Your task to perform on an android device: What's on my calendar tomorrow? Image 0: 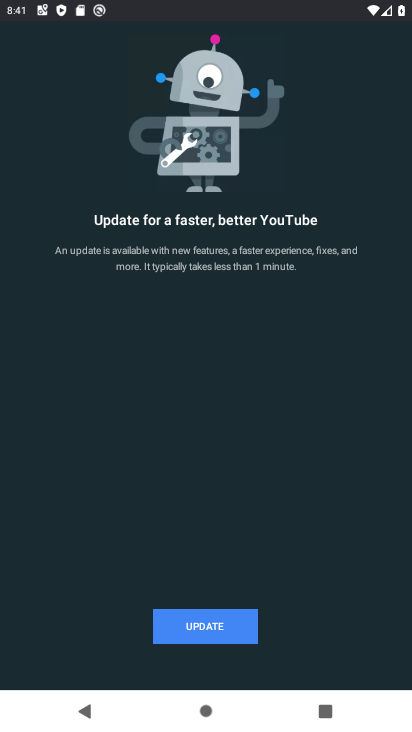
Step 0: press home button
Your task to perform on an android device: What's on my calendar tomorrow? Image 1: 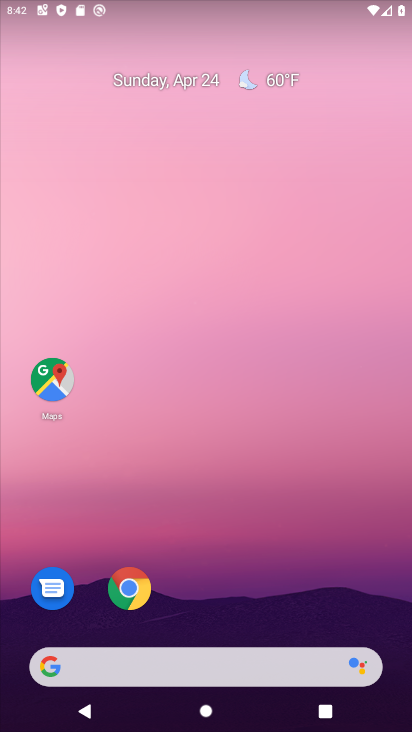
Step 1: drag from (211, 581) to (205, 78)
Your task to perform on an android device: What's on my calendar tomorrow? Image 2: 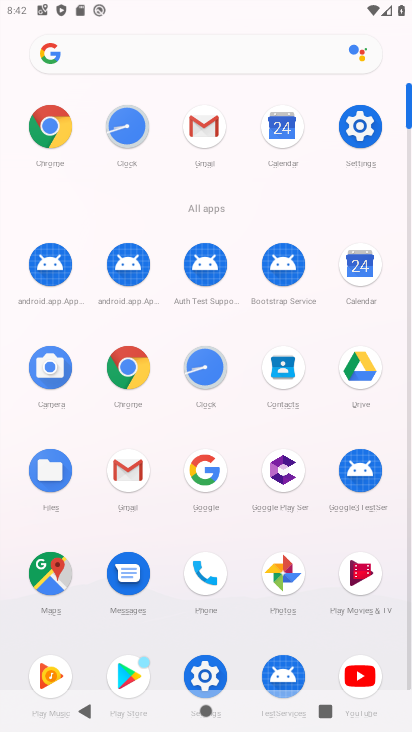
Step 2: click (283, 127)
Your task to perform on an android device: What's on my calendar tomorrow? Image 3: 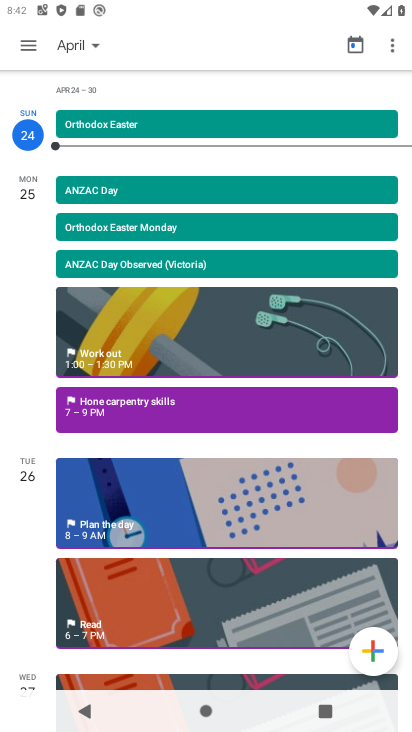
Step 3: click (92, 45)
Your task to perform on an android device: What's on my calendar tomorrow? Image 4: 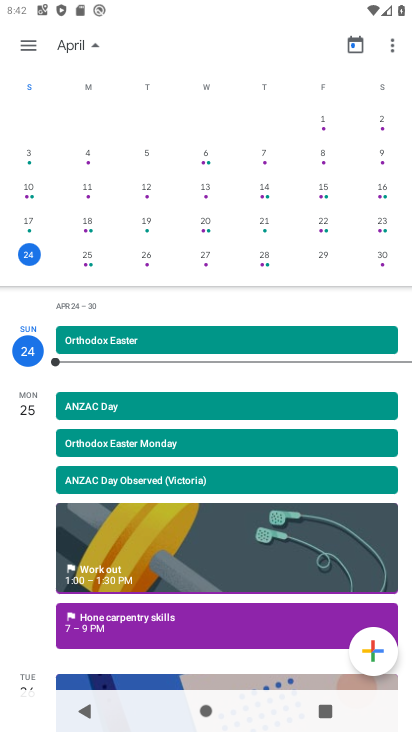
Step 4: click (92, 255)
Your task to perform on an android device: What's on my calendar tomorrow? Image 5: 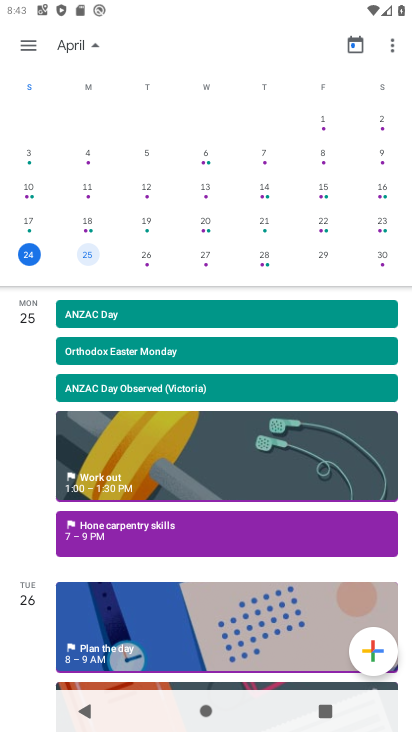
Step 5: task complete